Your task to perform on an android device: open app "Microsoft Excel" (install if not already installed), go to login, and select forgot password Image 0: 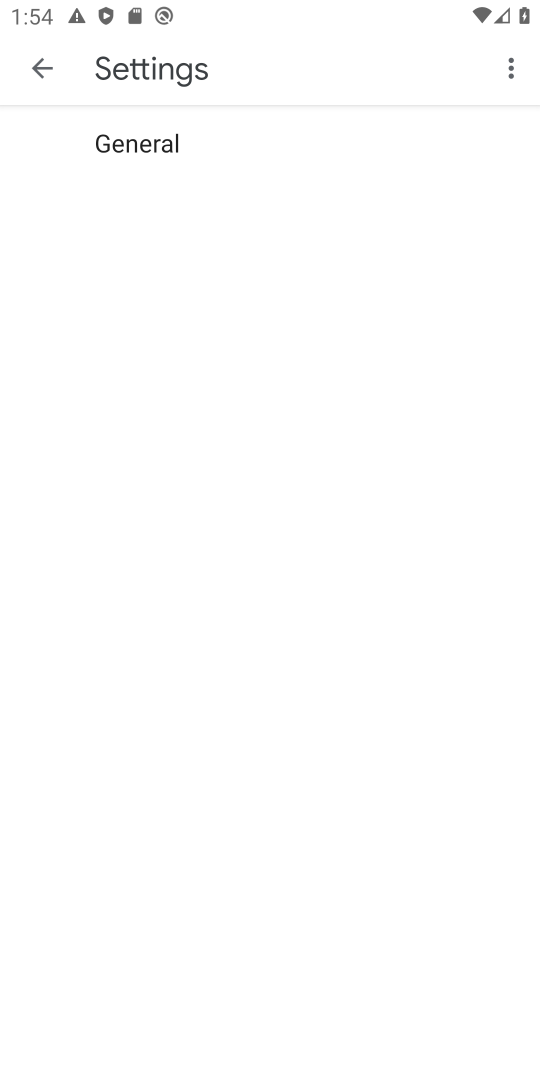
Step 0: press home button
Your task to perform on an android device: open app "Microsoft Excel" (install if not already installed), go to login, and select forgot password Image 1: 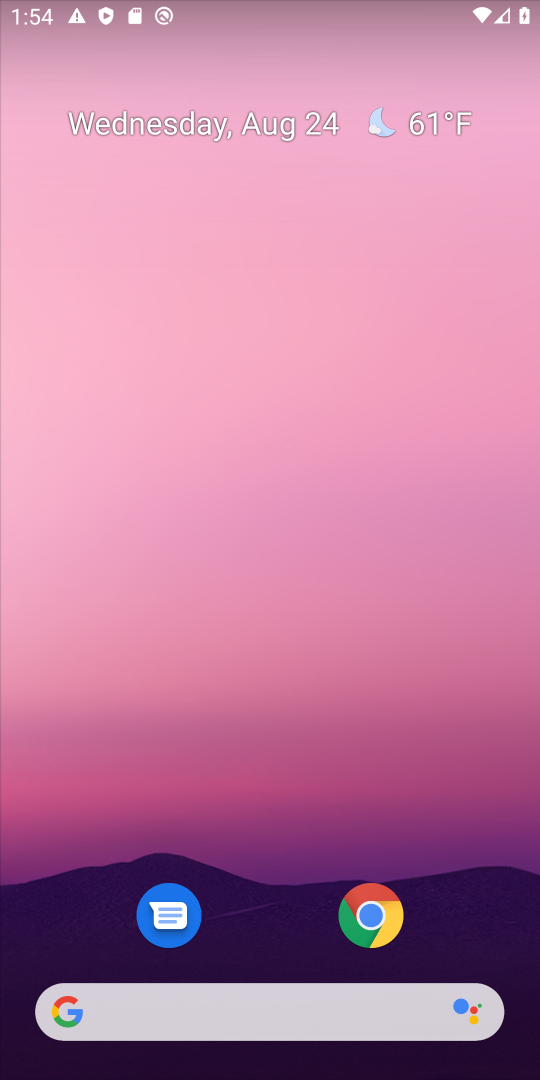
Step 1: drag from (246, 826) to (269, 333)
Your task to perform on an android device: open app "Microsoft Excel" (install if not already installed), go to login, and select forgot password Image 2: 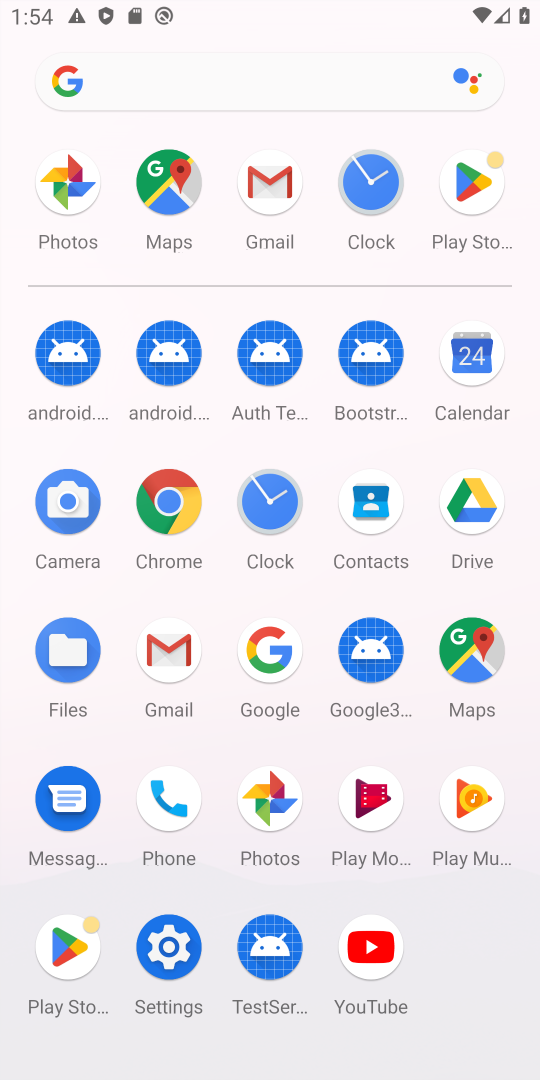
Step 2: click (473, 216)
Your task to perform on an android device: open app "Microsoft Excel" (install if not already installed), go to login, and select forgot password Image 3: 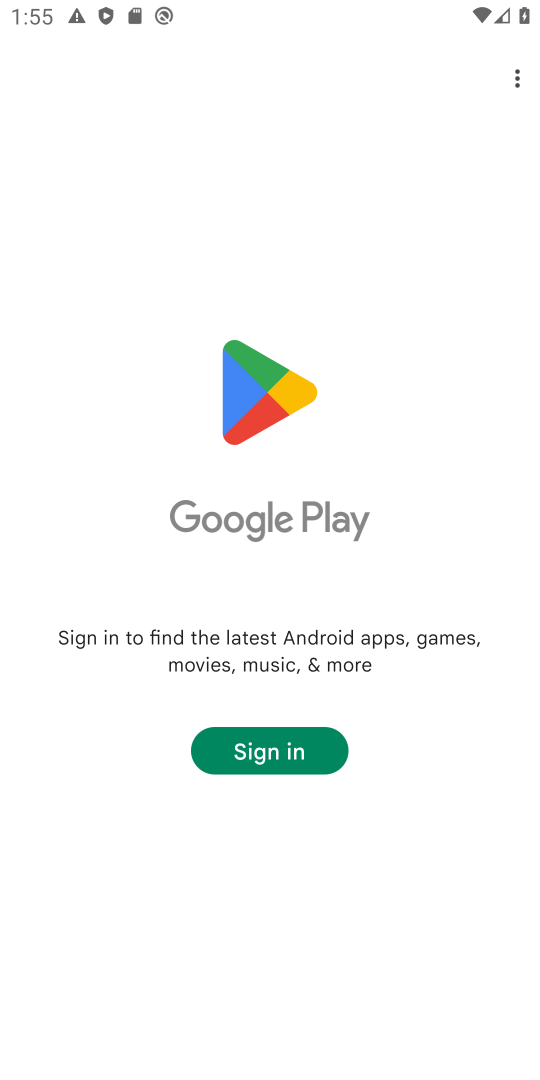
Step 3: task complete